Your task to perform on an android device: Open wifi settings Image 0: 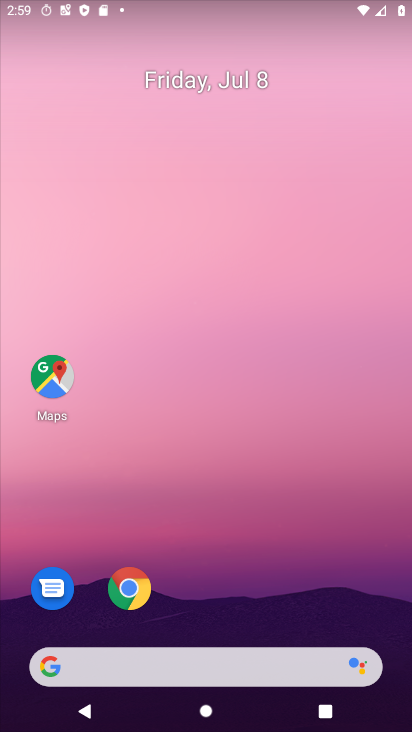
Step 0: press home button
Your task to perform on an android device: Open wifi settings Image 1: 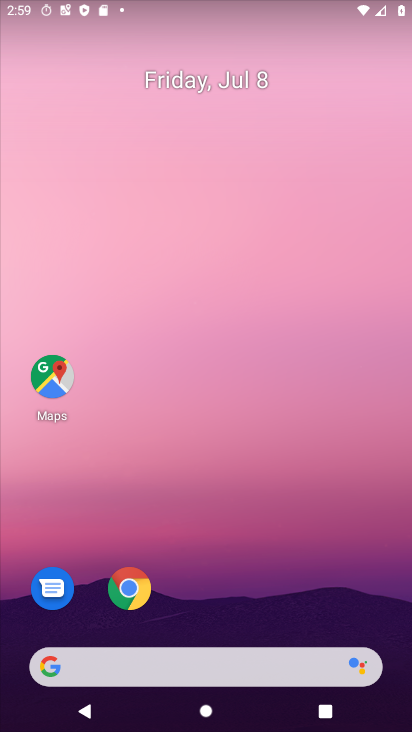
Step 1: drag from (235, 617) to (196, 4)
Your task to perform on an android device: Open wifi settings Image 2: 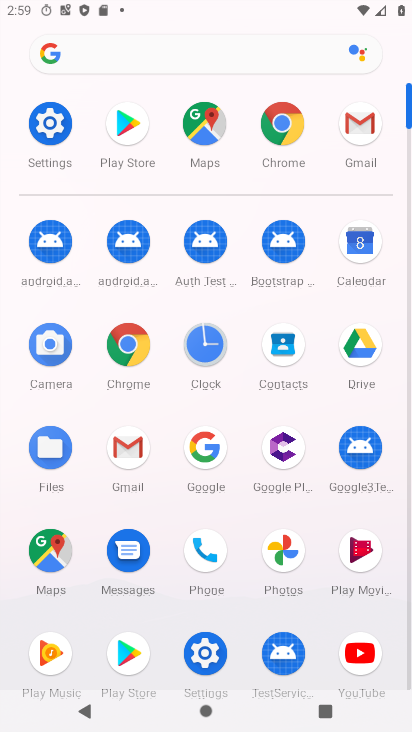
Step 2: click (49, 135)
Your task to perform on an android device: Open wifi settings Image 3: 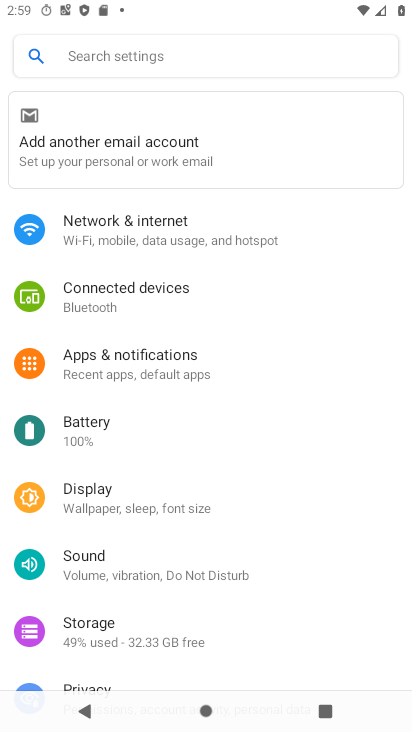
Step 3: click (123, 237)
Your task to perform on an android device: Open wifi settings Image 4: 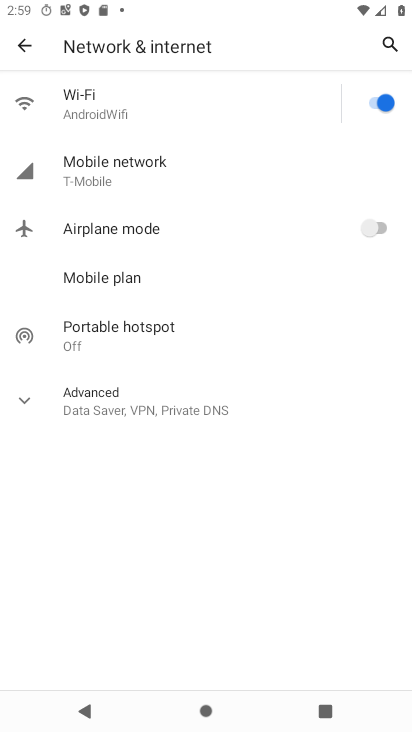
Step 4: click (89, 111)
Your task to perform on an android device: Open wifi settings Image 5: 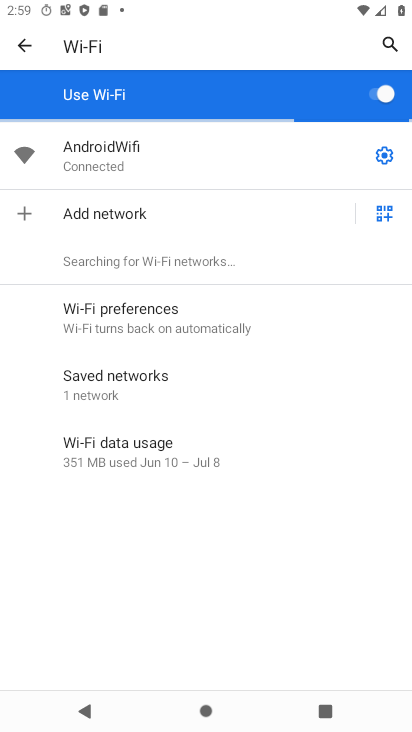
Step 5: task complete